Your task to perform on an android device: toggle priority inbox in the gmail app Image 0: 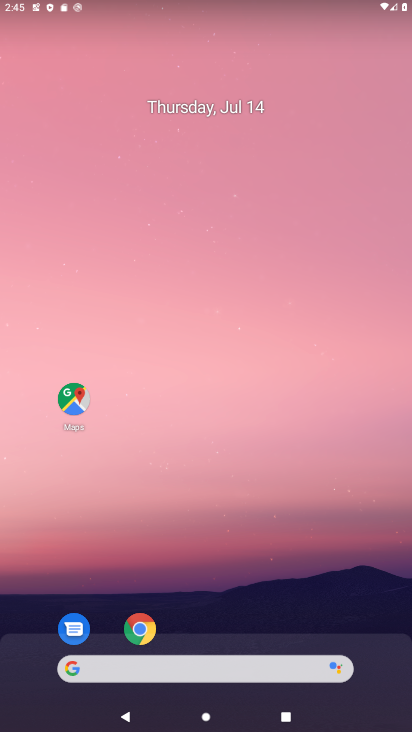
Step 0: drag from (303, 594) to (344, 338)
Your task to perform on an android device: toggle priority inbox in the gmail app Image 1: 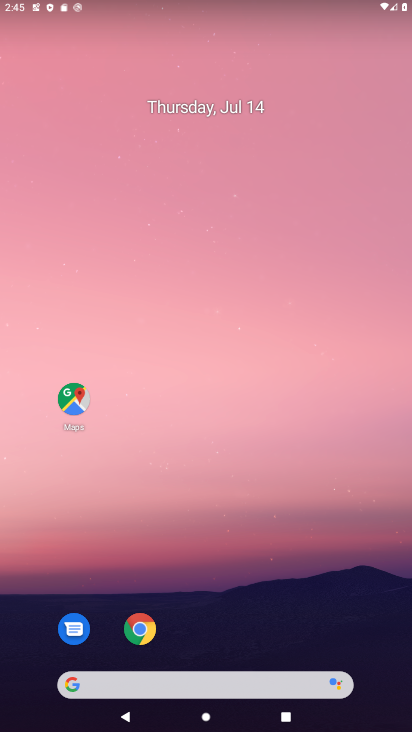
Step 1: drag from (279, 619) to (324, 52)
Your task to perform on an android device: toggle priority inbox in the gmail app Image 2: 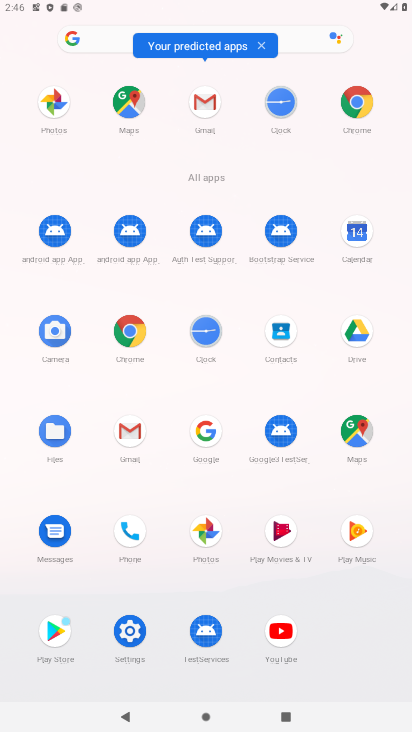
Step 2: click (211, 101)
Your task to perform on an android device: toggle priority inbox in the gmail app Image 3: 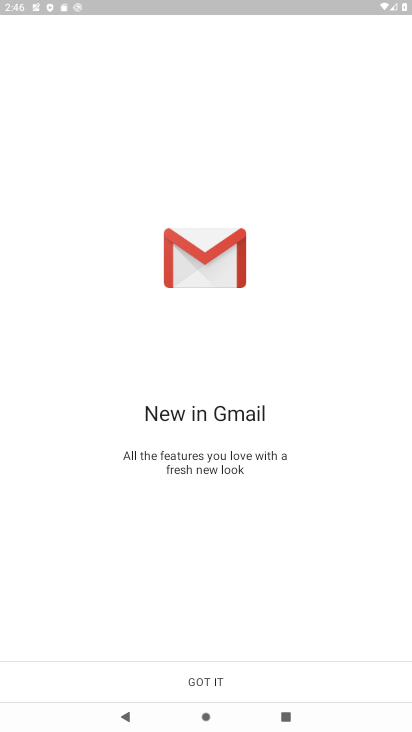
Step 3: click (191, 681)
Your task to perform on an android device: toggle priority inbox in the gmail app Image 4: 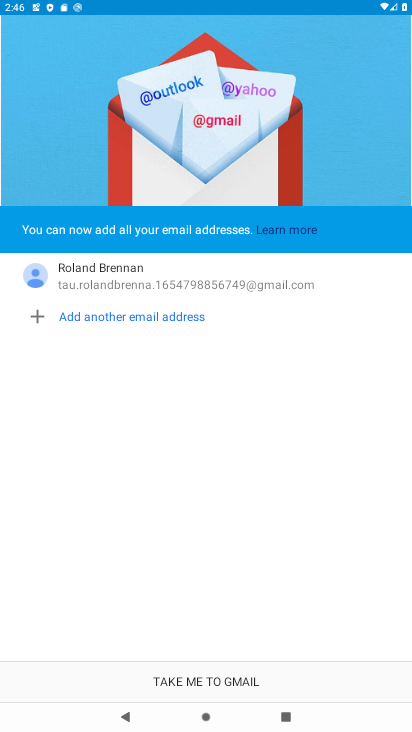
Step 4: click (191, 681)
Your task to perform on an android device: toggle priority inbox in the gmail app Image 5: 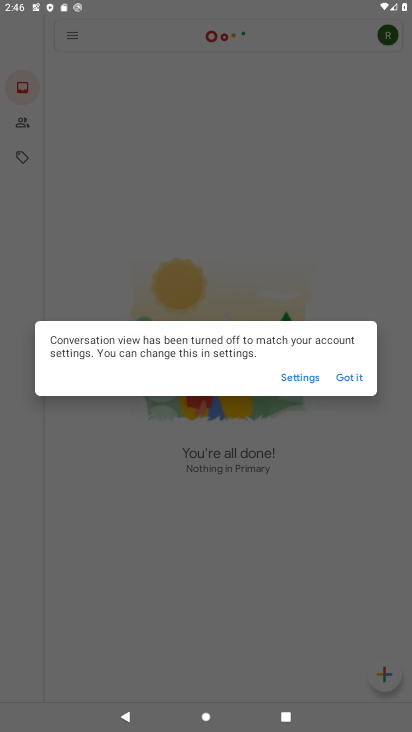
Step 5: click (348, 379)
Your task to perform on an android device: toggle priority inbox in the gmail app Image 6: 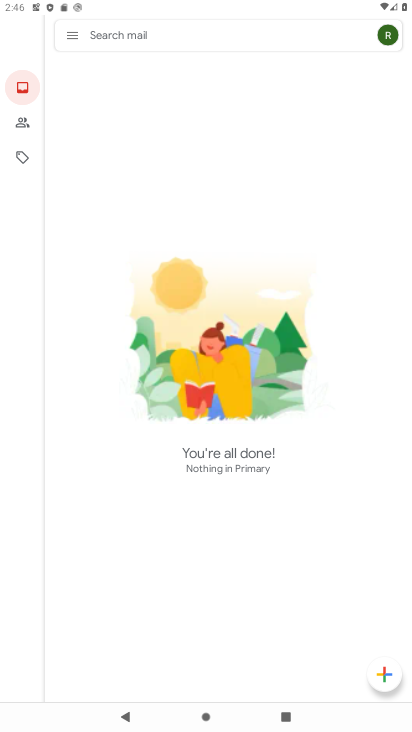
Step 6: click (69, 42)
Your task to perform on an android device: toggle priority inbox in the gmail app Image 7: 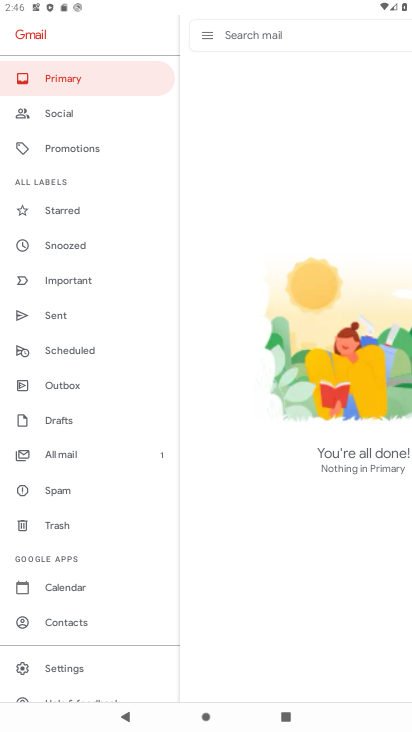
Step 7: click (78, 665)
Your task to perform on an android device: toggle priority inbox in the gmail app Image 8: 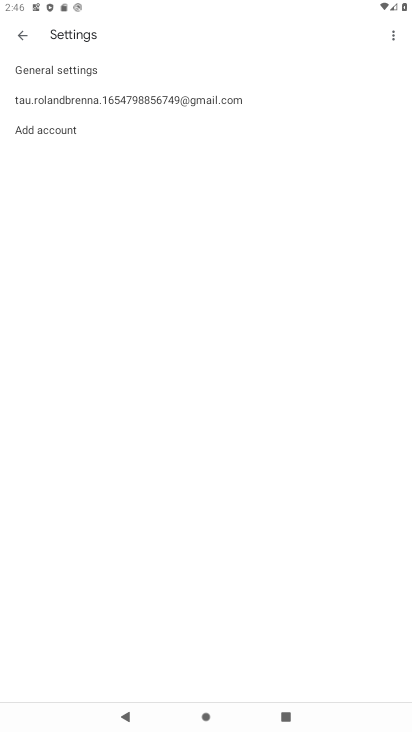
Step 8: click (136, 109)
Your task to perform on an android device: toggle priority inbox in the gmail app Image 9: 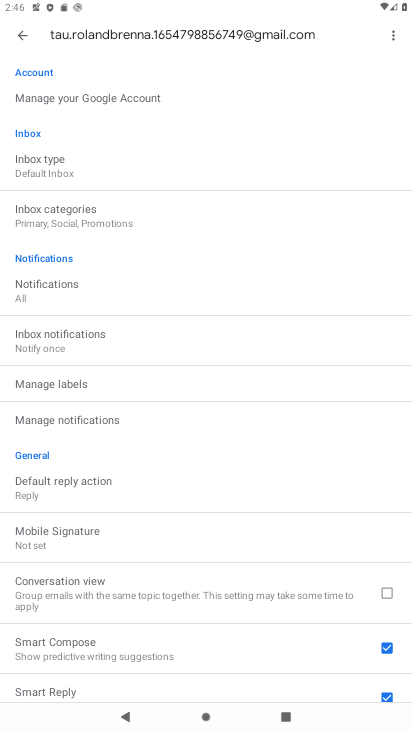
Step 9: click (89, 172)
Your task to perform on an android device: toggle priority inbox in the gmail app Image 10: 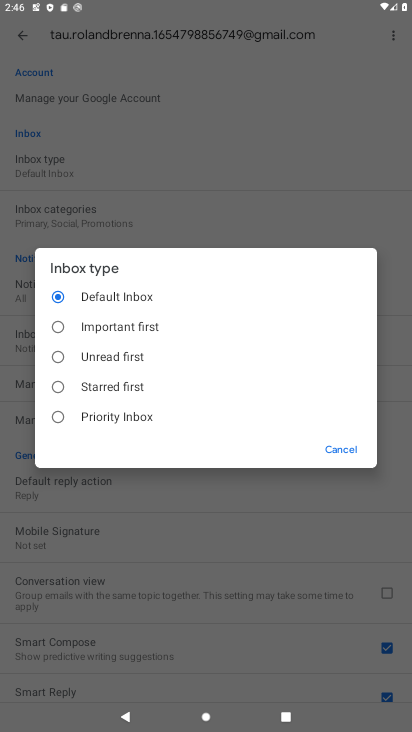
Step 10: click (115, 419)
Your task to perform on an android device: toggle priority inbox in the gmail app Image 11: 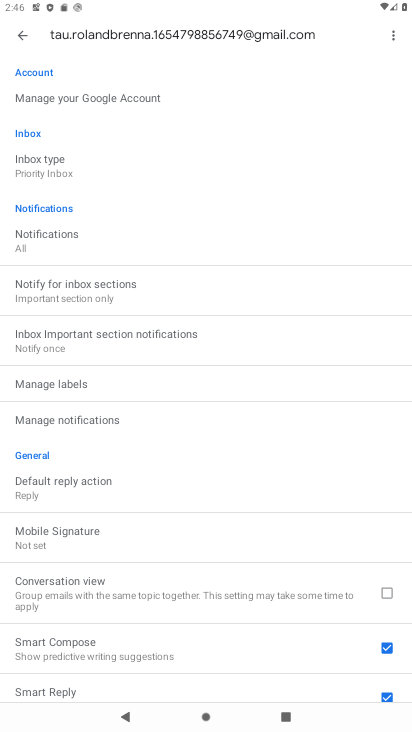
Step 11: task complete